Your task to perform on an android device: Play the last video I watched on Youtube Image 0: 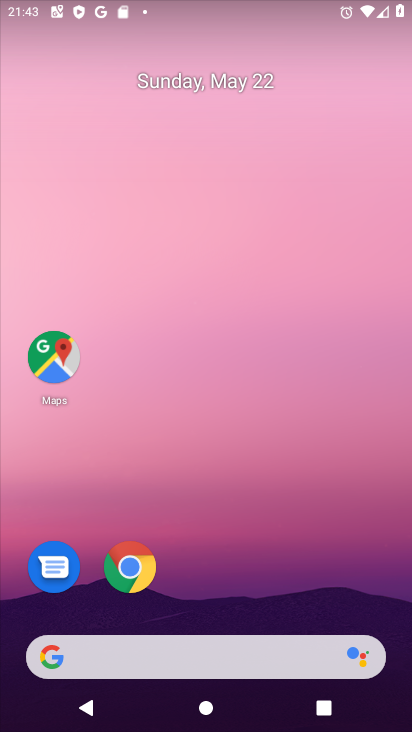
Step 0: drag from (231, 592) to (277, 9)
Your task to perform on an android device: Play the last video I watched on Youtube Image 1: 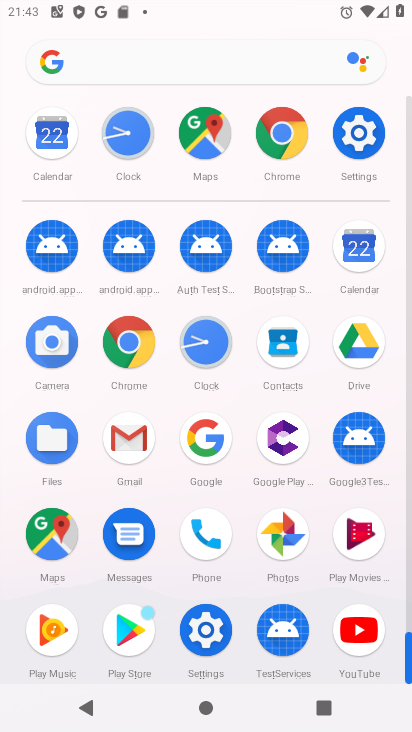
Step 1: click (204, 632)
Your task to perform on an android device: Play the last video I watched on Youtube Image 2: 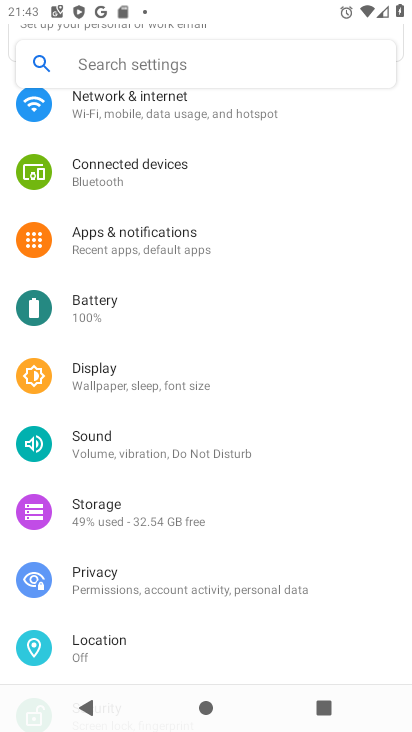
Step 2: press home button
Your task to perform on an android device: Play the last video I watched on Youtube Image 3: 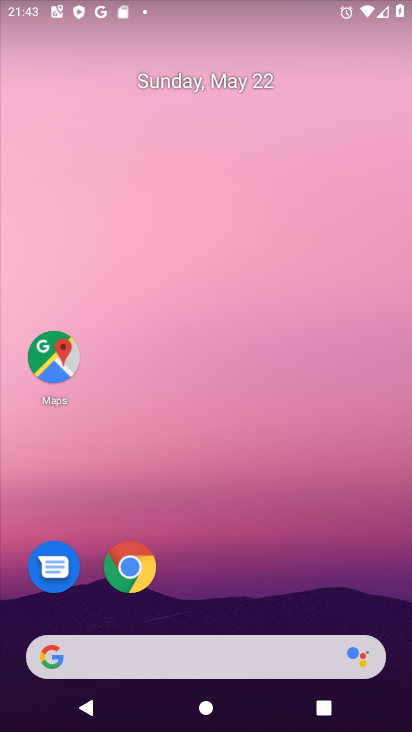
Step 3: drag from (220, 534) to (330, 13)
Your task to perform on an android device: Play the last video I watched on Youtube Image 4: 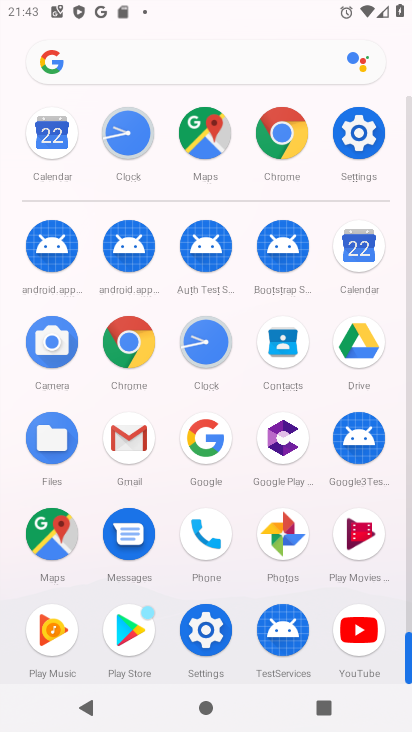
Step 4: drag from (313, 653) to (345, 224)
Your task to perform on an android device: Play the last video I watched on Youtube Image 5: 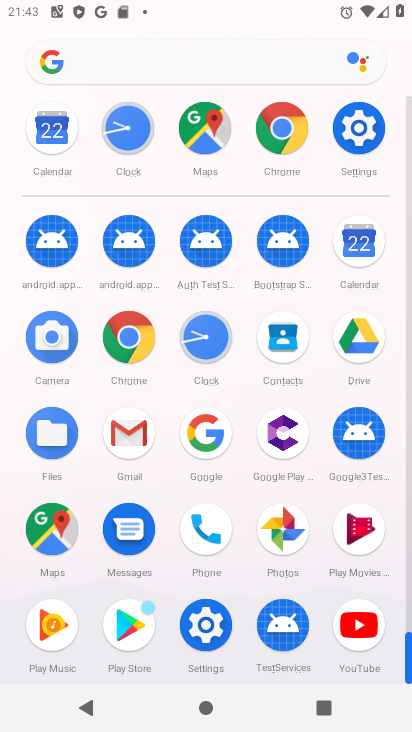
Step 5: click (361, 627)
Your task to perform on an android device: Play the last video I watched on Youtube Image 6: 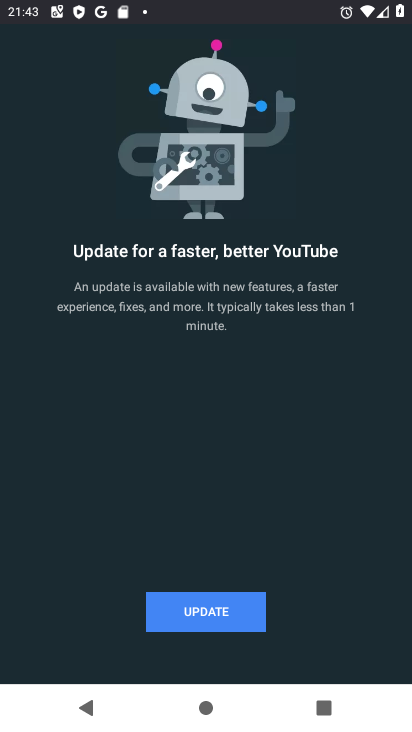
Step 6: click (201, 614)
Your task to perform on an android device: Play the last video I watched on Youtube Image 7: 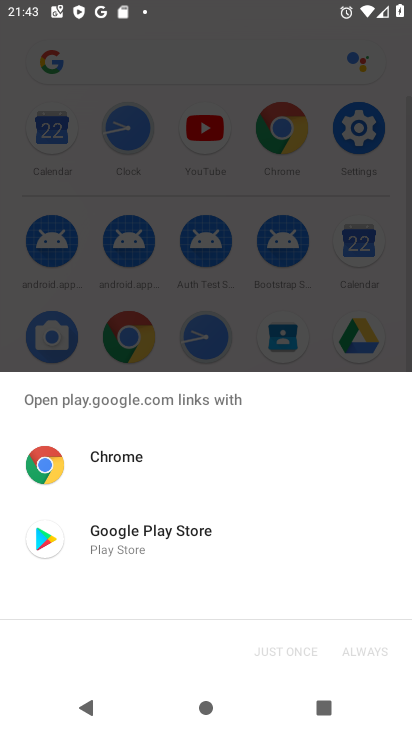
Step 7: click (145, 538)
Your task to perform on an android device: Play the last video I watched on Youtube Image 8: 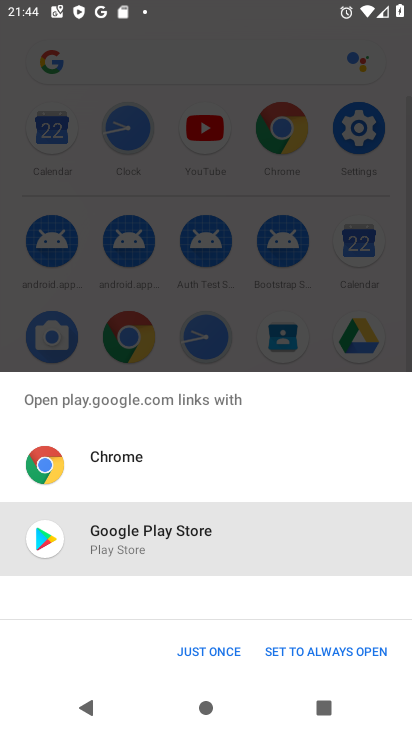
Step 8: click (237, 651)
Your task to perform on an android device: Play the last video I watched on Youtube Image 9: 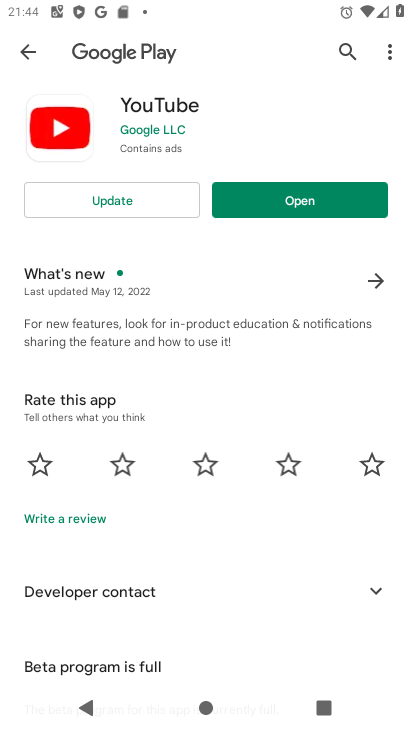
Step 9: click (121, 198)
Your task to perform on an android device: Play the last video I watched on Youtube Image 10: 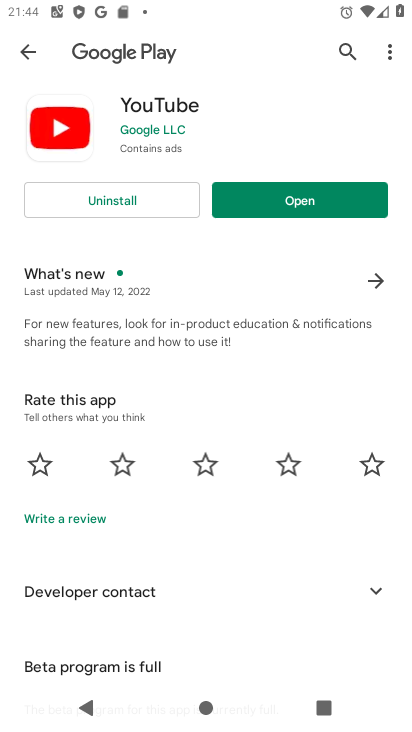
Step 10: click (272, 212)
Your task to perform on an android device: Play the last video I watched on Youtube Image 11: 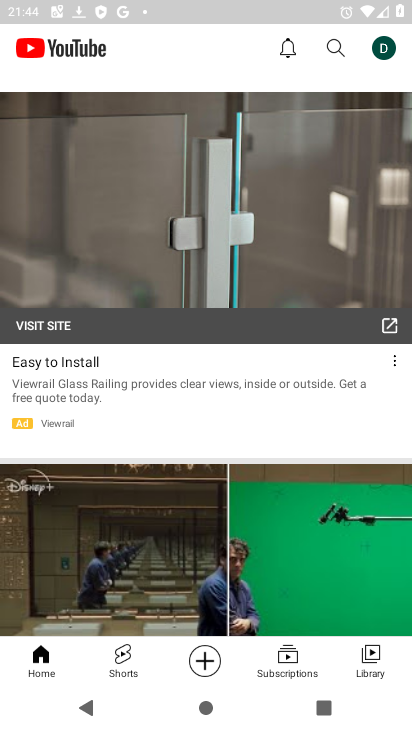
Step 11: drag from (74, 121) to (48, 388)
Your task to perform on an android device: Play the last video I watched on Youtube Image 12: 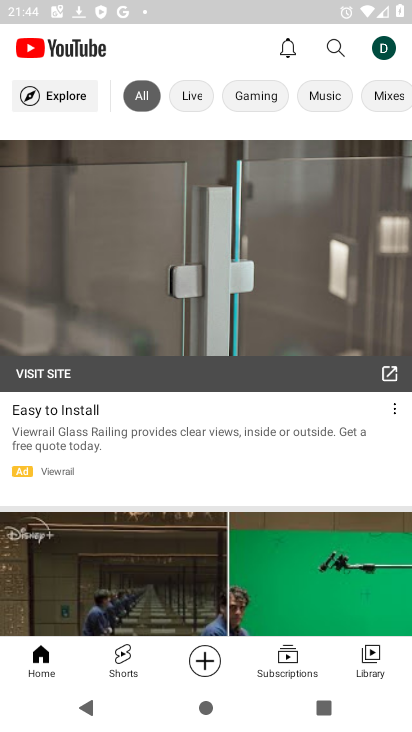
Step 12: click (37, 96)
Your task to perform on an android device: Play the last video I watched on Youtube Image 13: 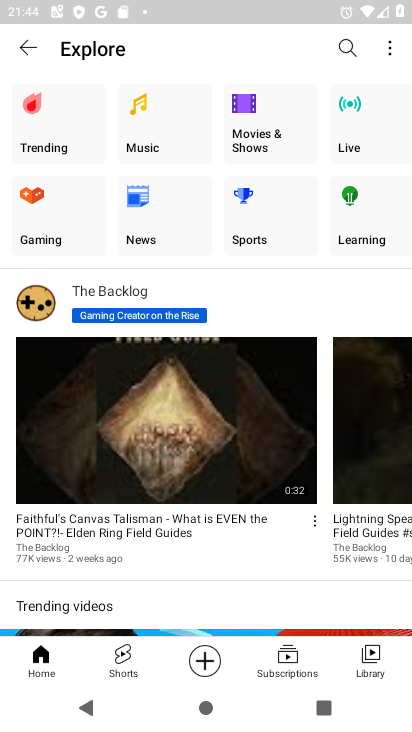
Step 13: click (54, 126)
Your task to perform on an android device: Play the last video I watched on Youtube Image 14: 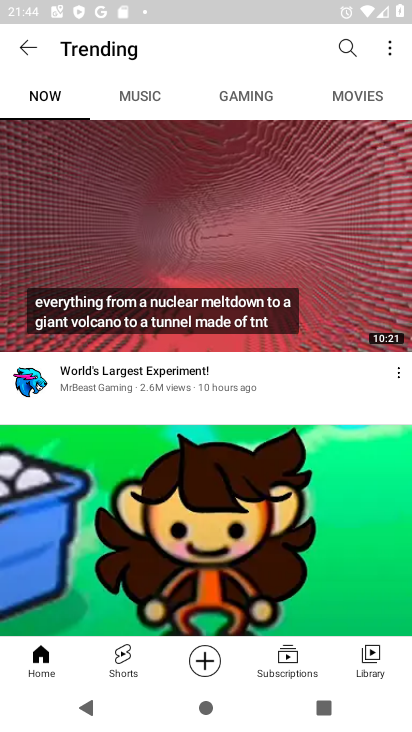
Step 14: task complete